Your task to perform on an android device: change the clock display to digital Image 0: 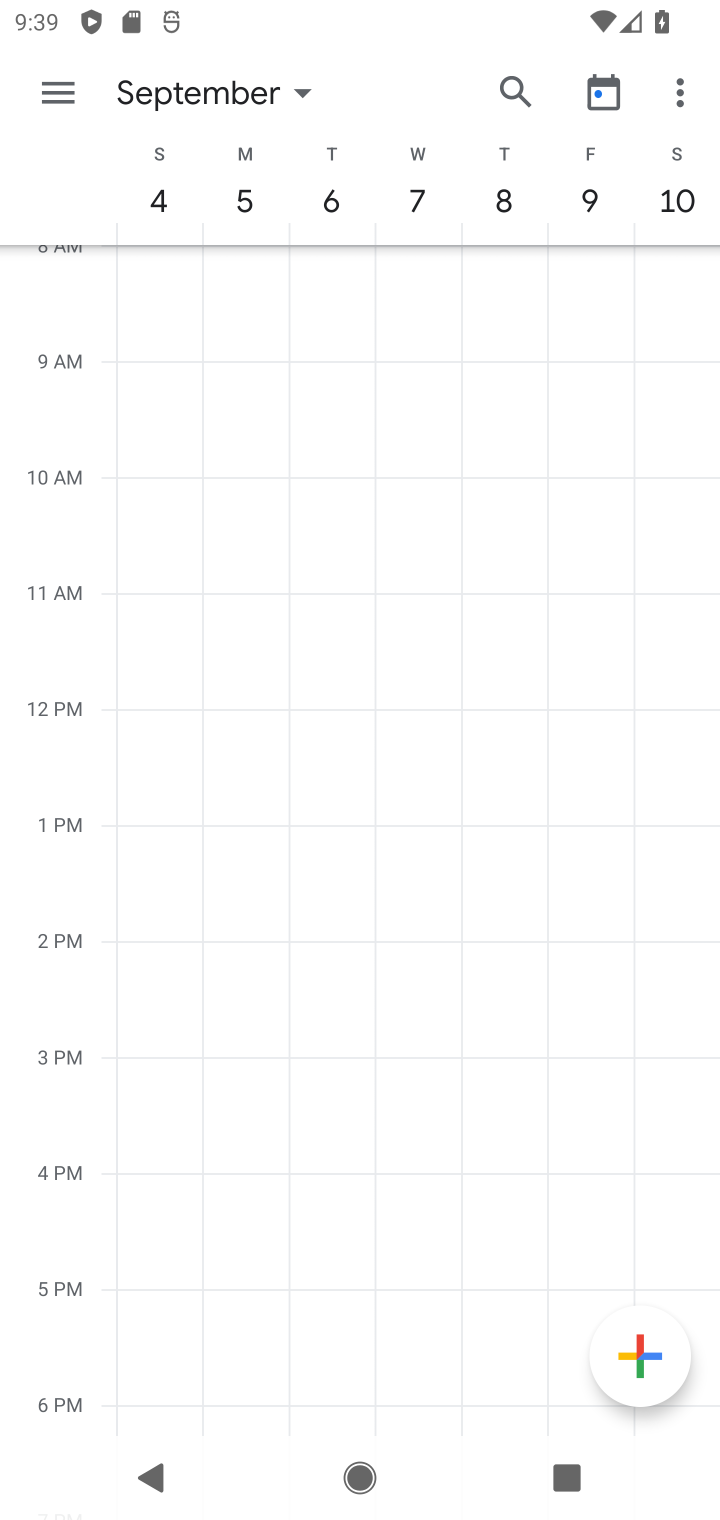
Step 0: press home button
Your task to perform on an android device: change the clock display to digital Image 1: 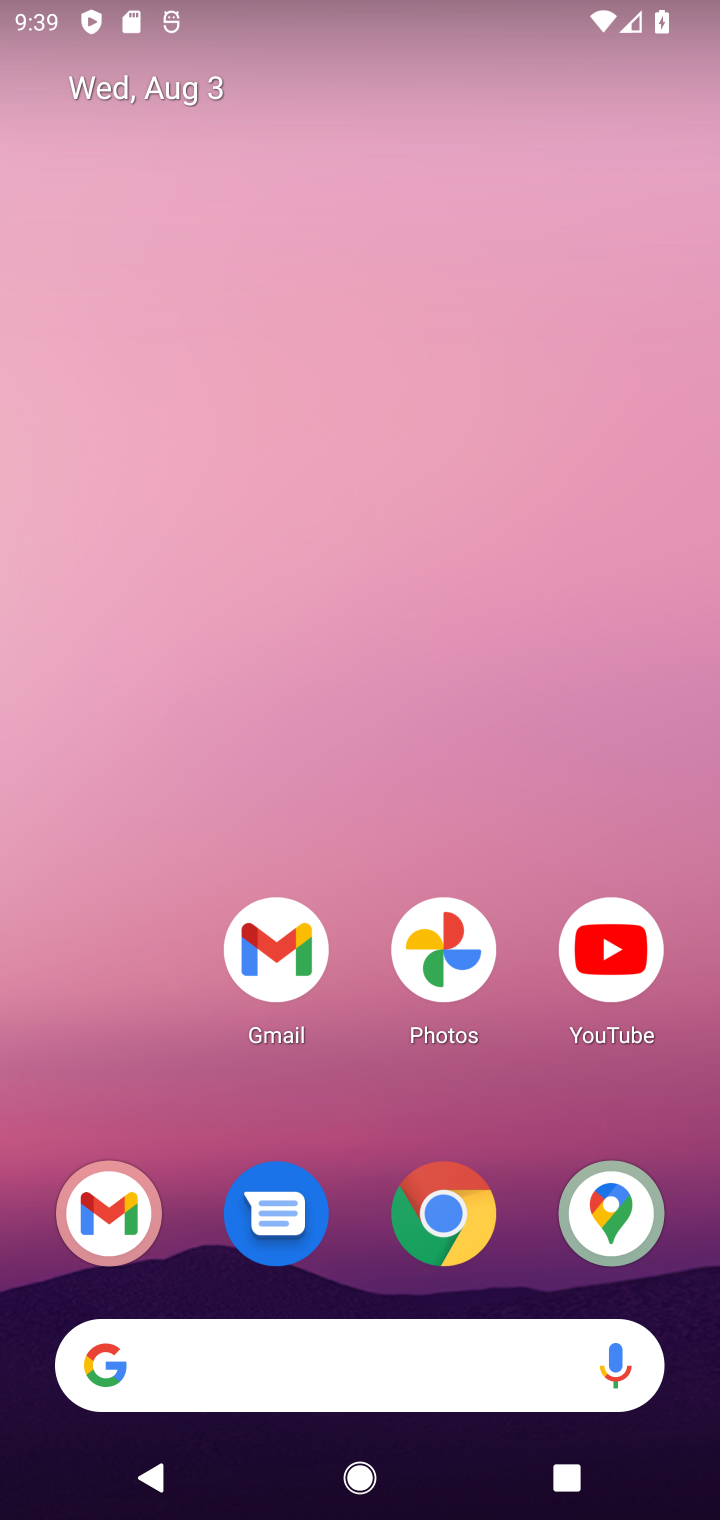
Step 1: drag from (445, 1136) to (274, 442)
Your task to perform on an android device: change the clock display to digital Image 2: 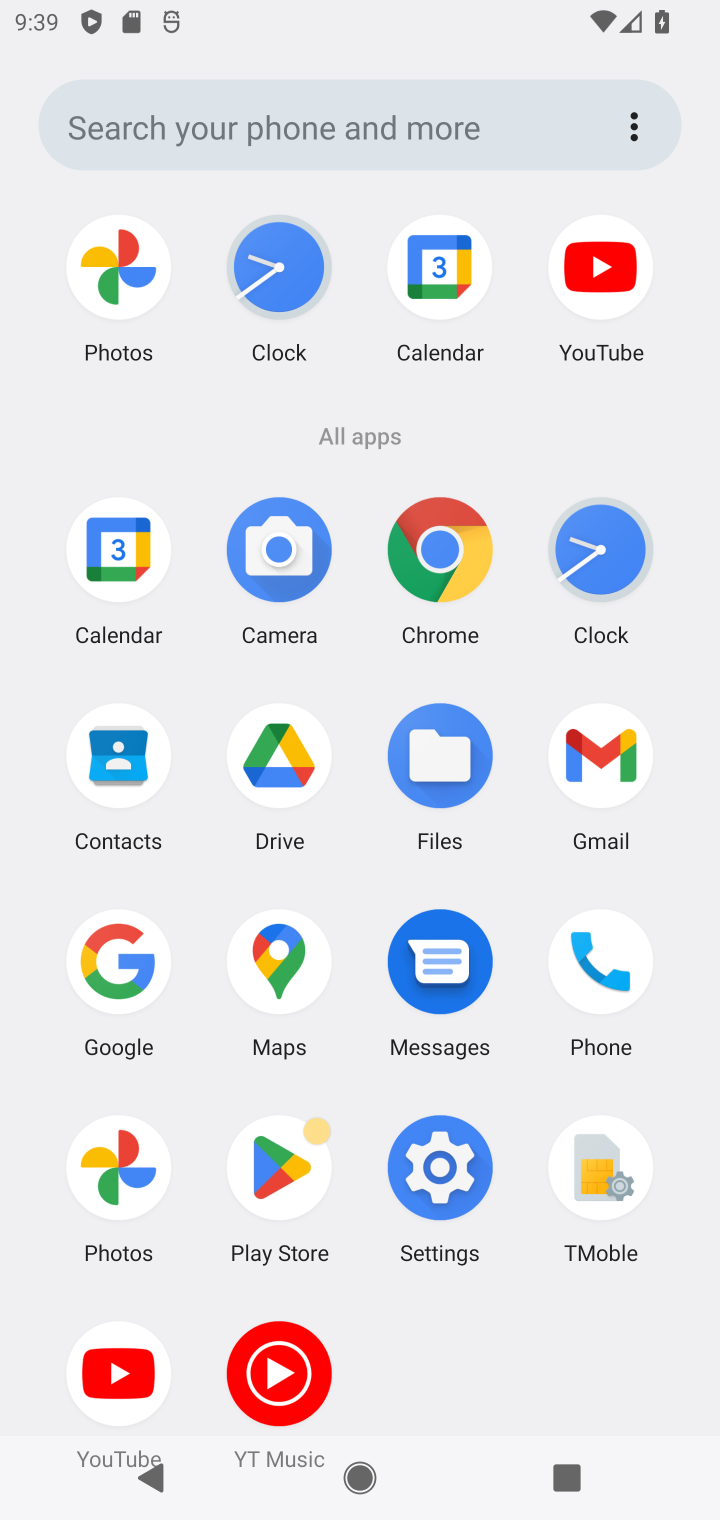
Step 2: click (266, 262)
Your task to perform on an android device: change the clock display to digital Image 3: 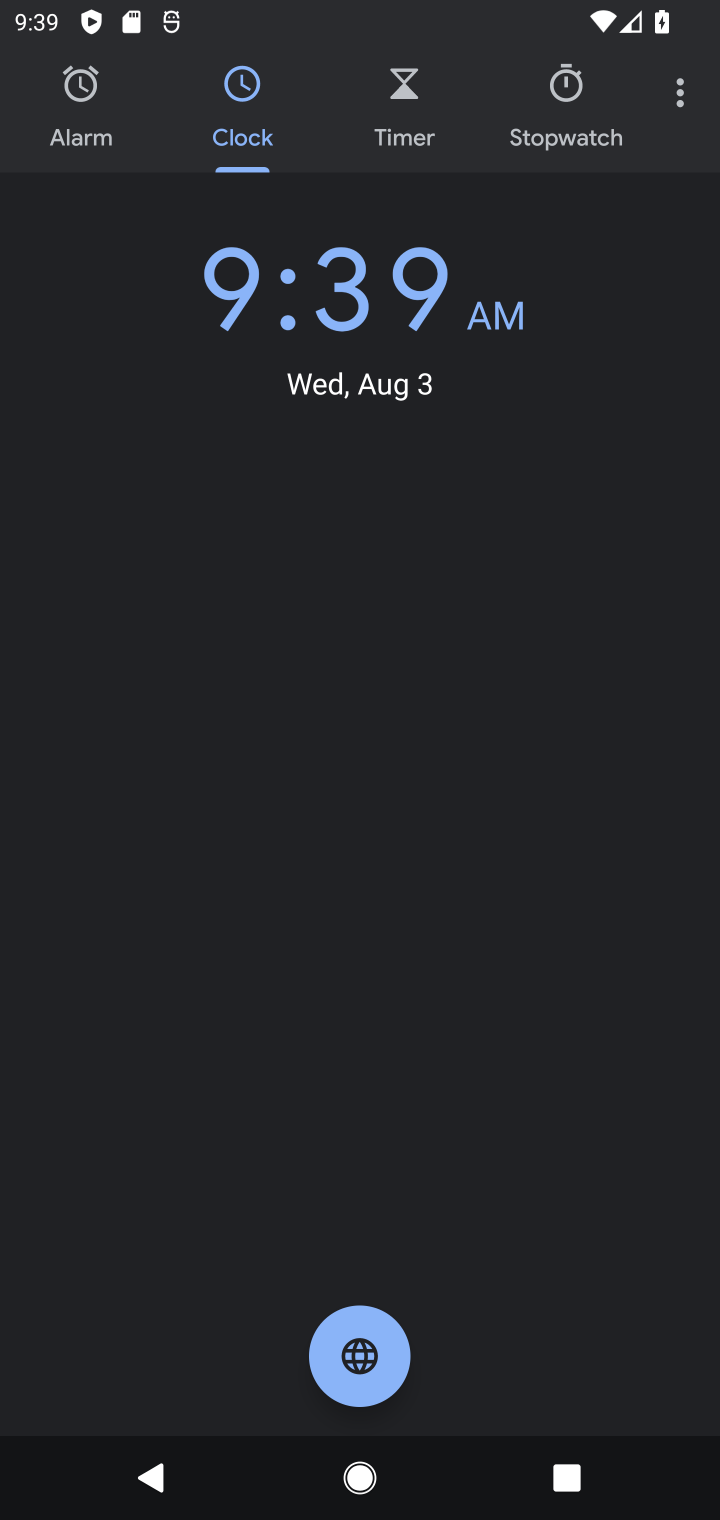
Step 3: click (683, 100)
Your task to perform on an android device: change the clock display to digital Image 4: 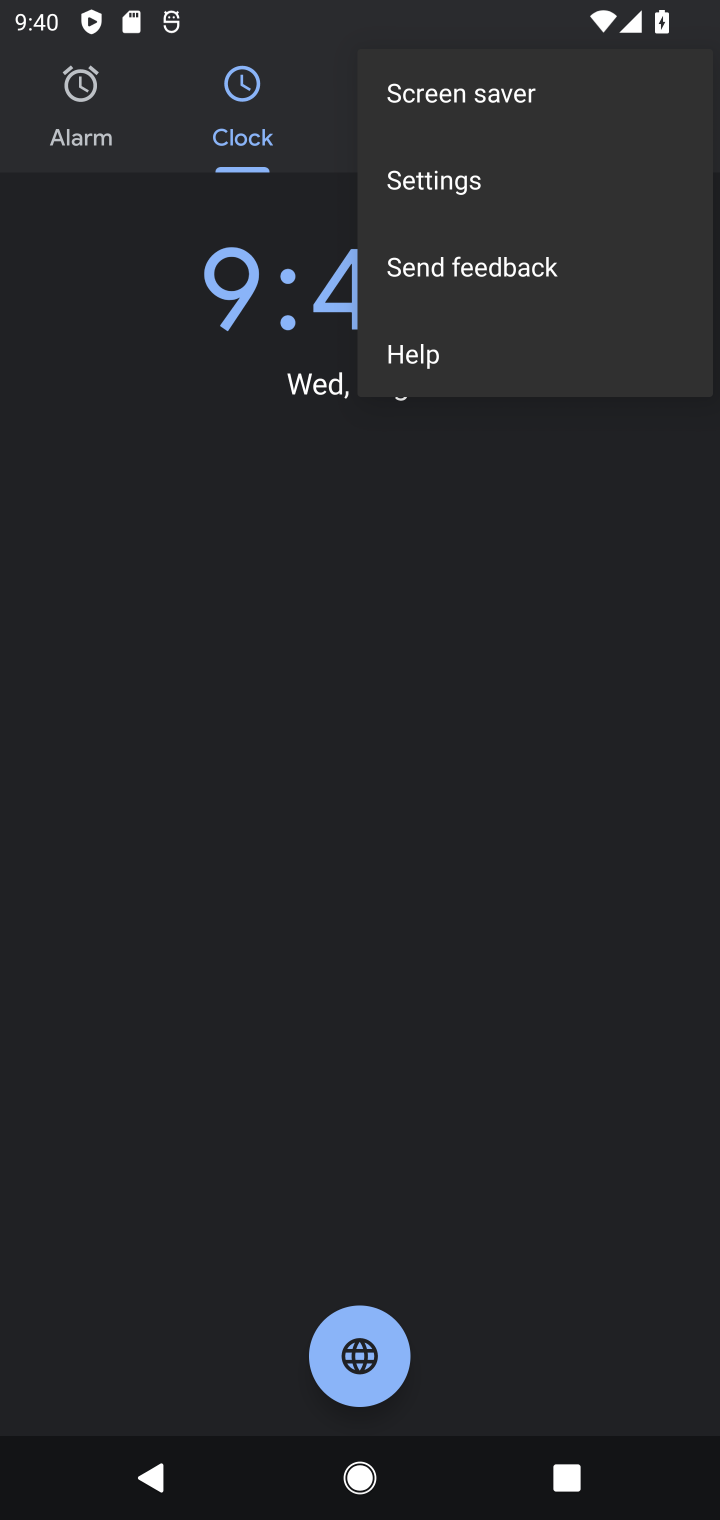
Step 4: click (402, 203)
Your task to perform on an android device: change the clock display to digital Image 5: 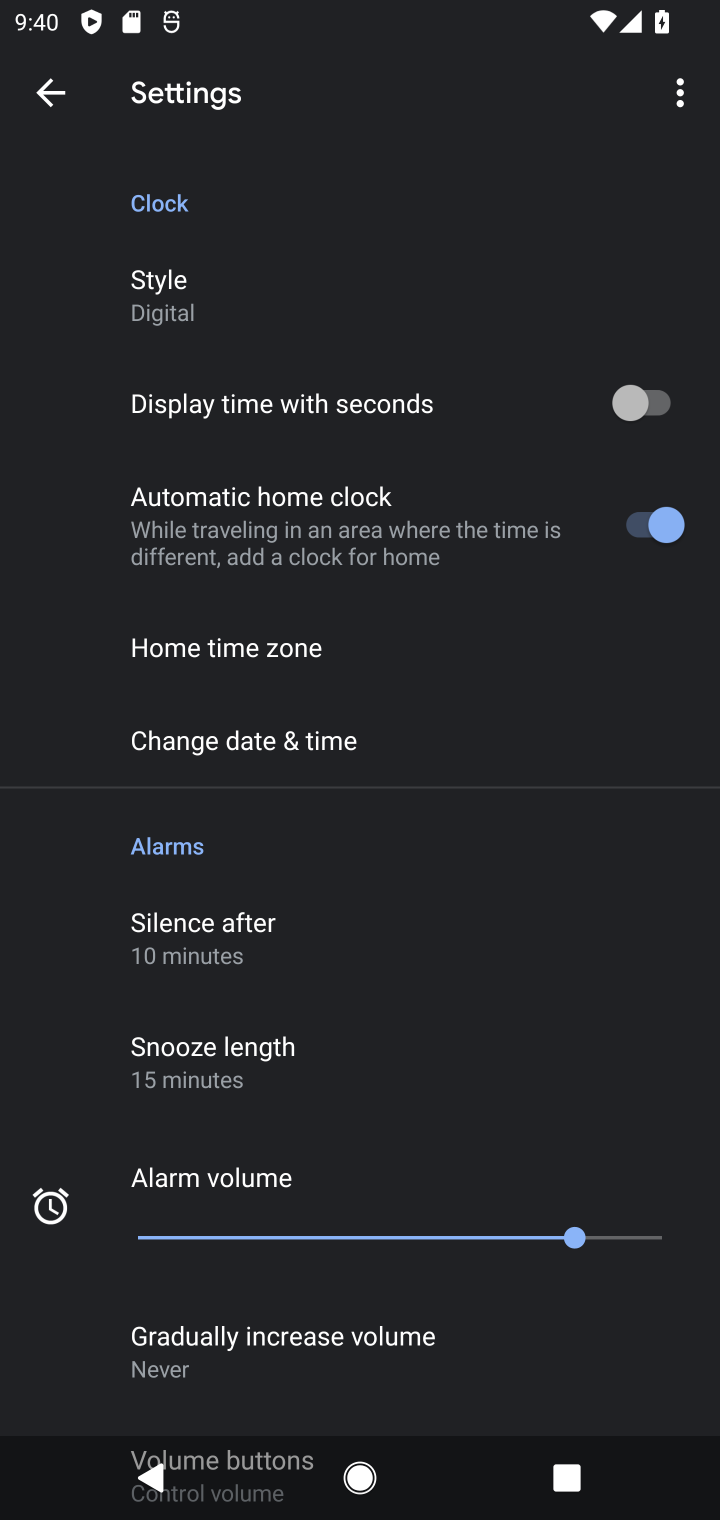
Step 5: task complete